Your task to perform on an android device: Open Google Chrome and open the bookmarks view Image 0: 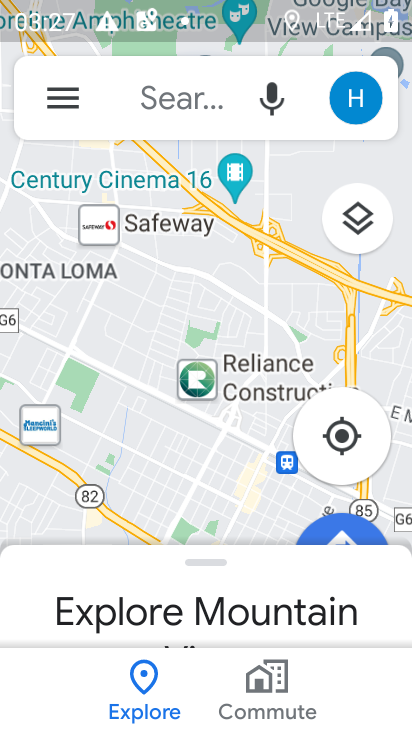
Step 0: press home button
Your task to perform on an android device: Open Google Chrome and open the bookmarks view Image 1: 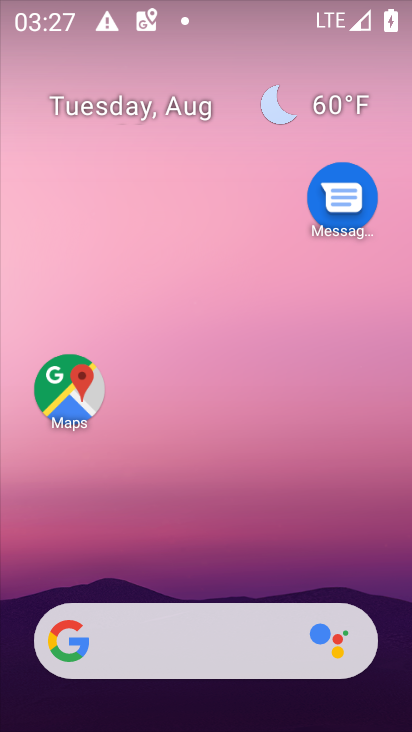
Step 1: drag from (303, 599) to (238, 65)
Your task to perform on an android device: Open Google Chrome and open the bookmarks view Image 2: 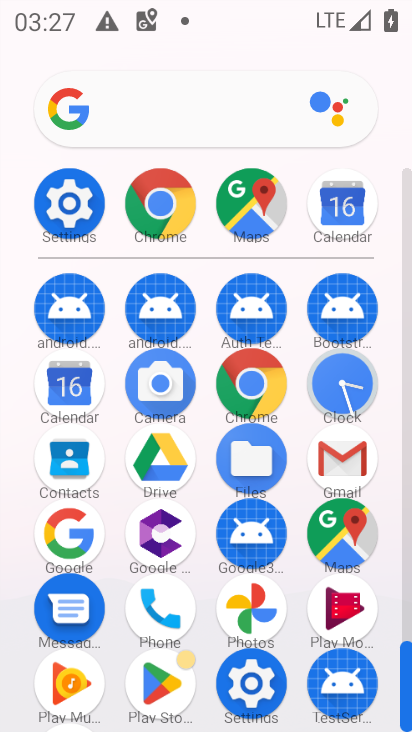
Step 2: click (262, 380)
Your task to perform on an android device: Open Google Chrome and open the bookmarks view Image 3: 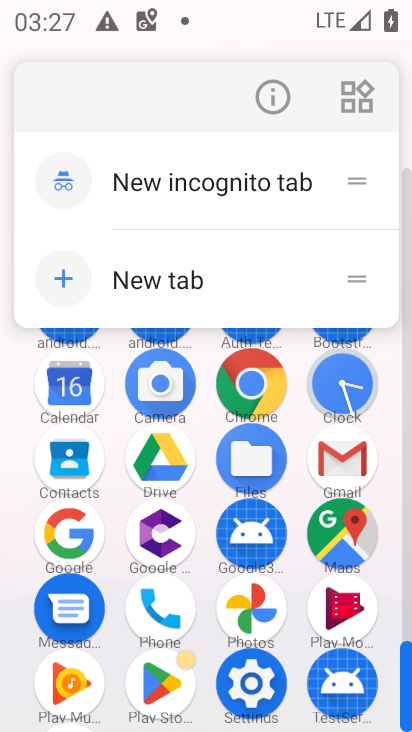
Step 3: click (247, 396)
Your task to perform on an android device: Open Google Chrome and open the bookmarks view Image 4: 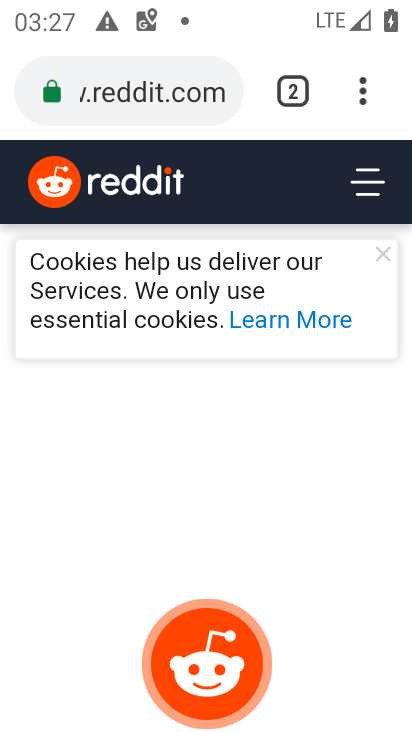
Step 4: click (373, 84)
Your task to perform on an android device: Open Google Chrome and open the bookmarks view Image 5: 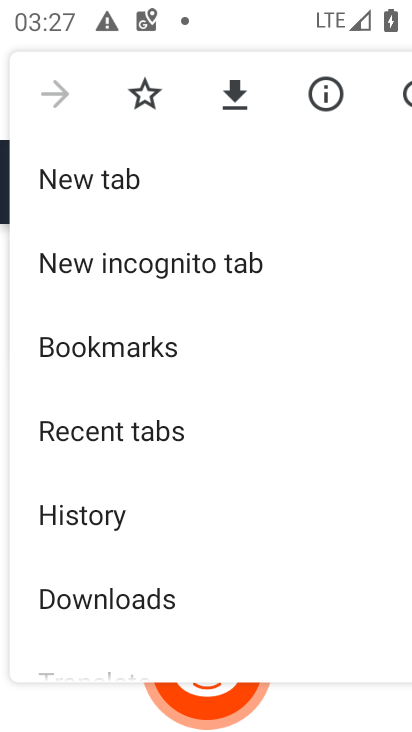
Step 5: click (88, 365)
Your task to perform on an android device: Open Google Chrome and open the bookmarks view Image 6: 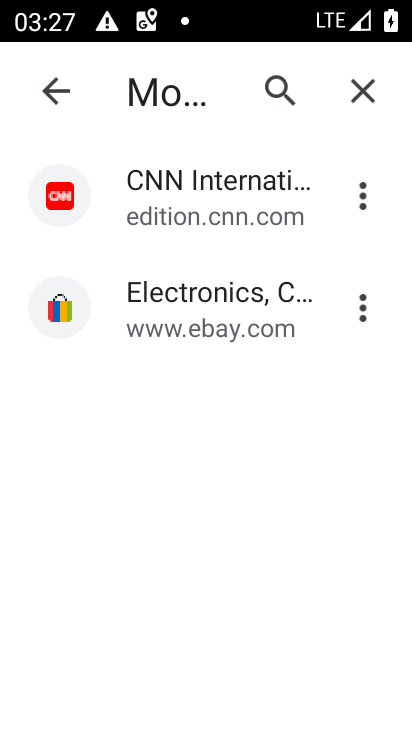
Step 6: task complete